Your task to perform on an android device: allow cookies in the chrome app Image 0: 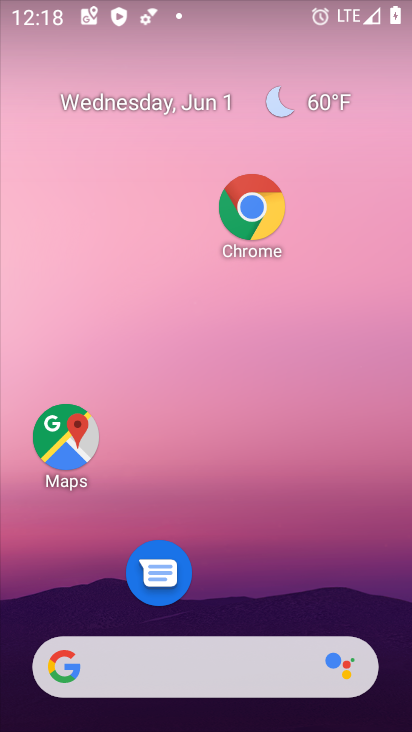
Step 0: click (252, 228)
Your task to perform on an android device: allow cookies in the chrome app Image 1: 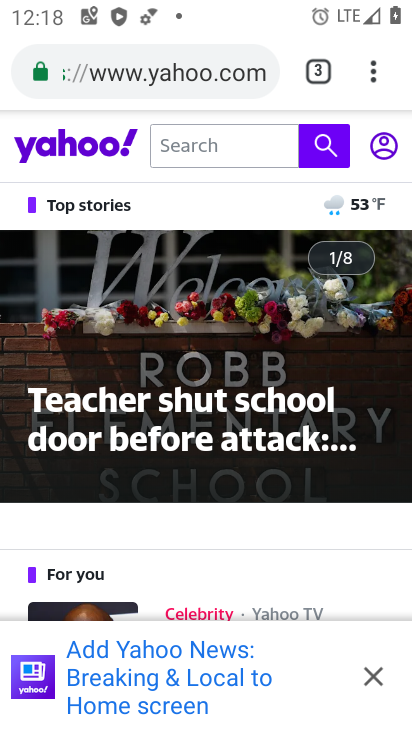
Step 1: drag from (367, 52) to (140, 571)
Your task to perform on an android device: allow cookies in the chrome app Image 2: 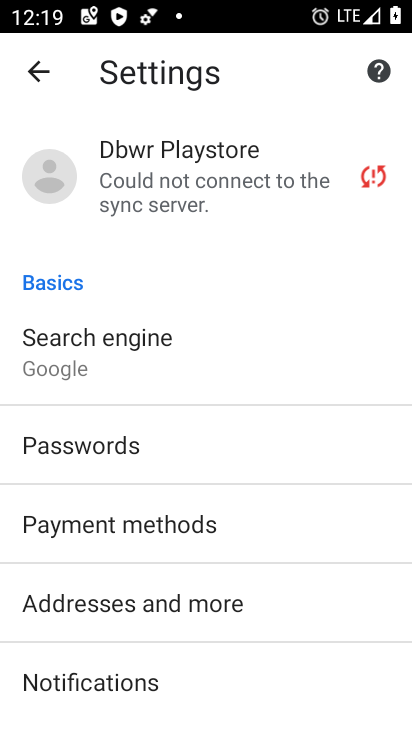
Step 2: drag from (141, 611) to (161, 241)
Your task to perform on an android device: allow cookies in the chrome app Image 3: 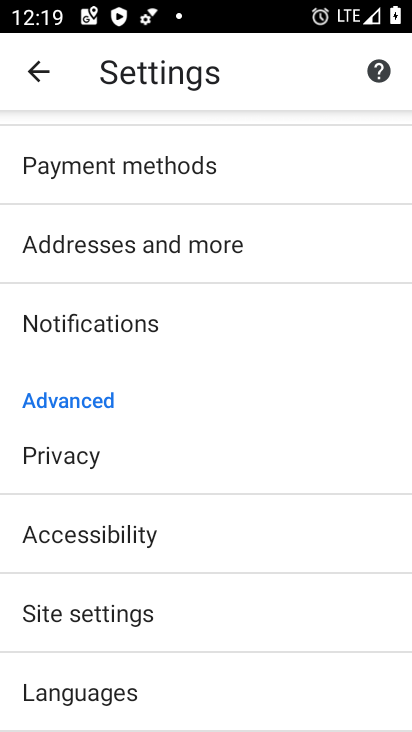
Step 3: click (165, 615)
Your task to perform on an android device: allow cookies in the chrome app Image 4: 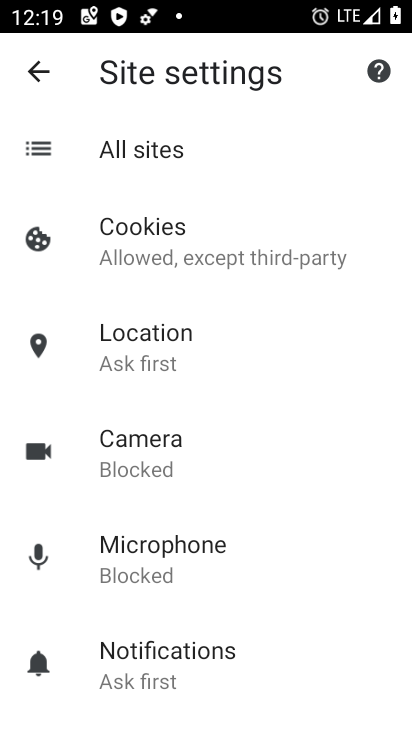
Step 4: click (202, 229)
Your task to perform on an android device: allow cookies in the chrome app Image 5: 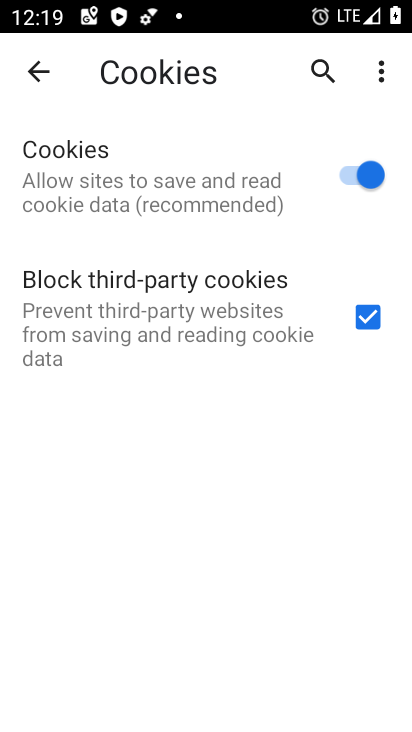
Step 5: task complete